Your task to perform on an android device: set default search engine in the chrome app Image 0: 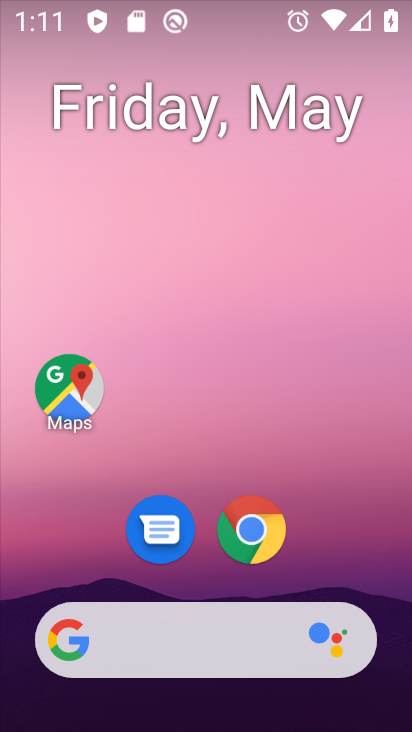
Step 0: click (250, 538)
Your task to perform on an android device: set default search engine in the chrome app Image 1: 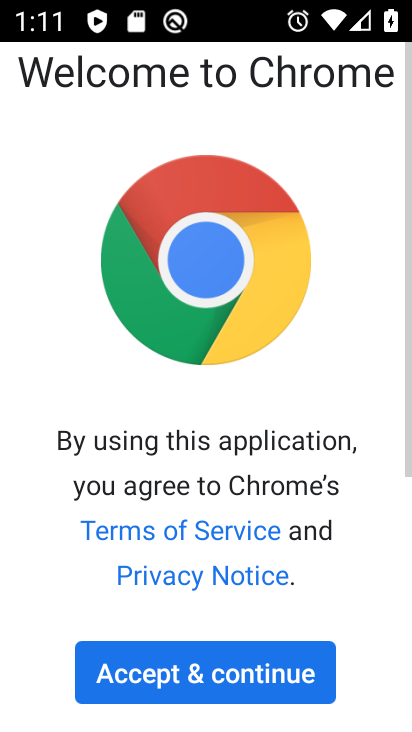
Step 1: click (239, 675)
Your task to perform on an android device: set default search engine in the chrome app Image 2: 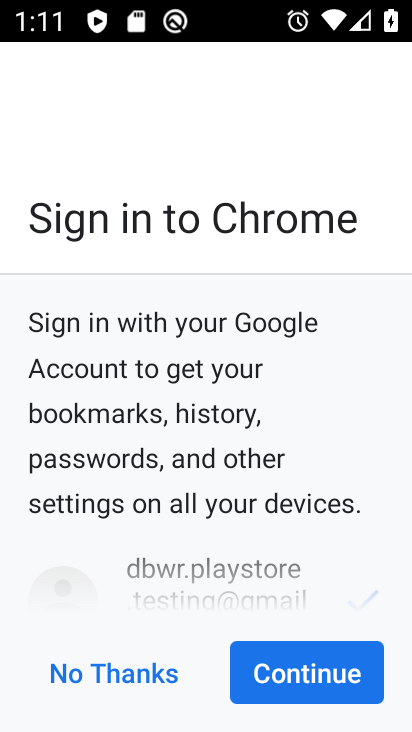
Step 2: click (304, 677)
Your task to perform on an android device: set default search engine in the chrome app Image 3: 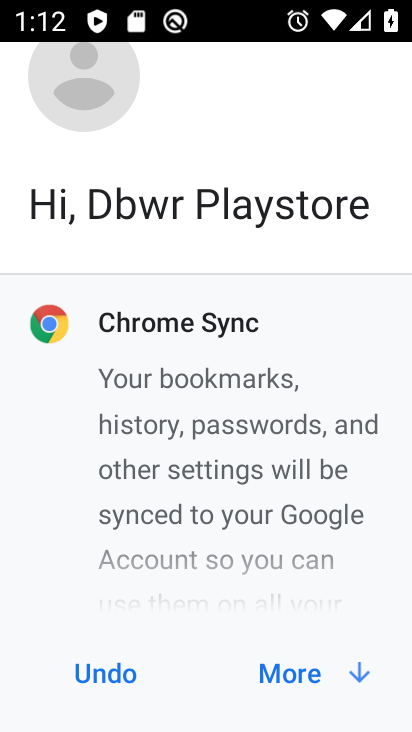
Step 3: click (304, 677)
Your task to perform on an android device: set default search engine in the chrome app Image 4: 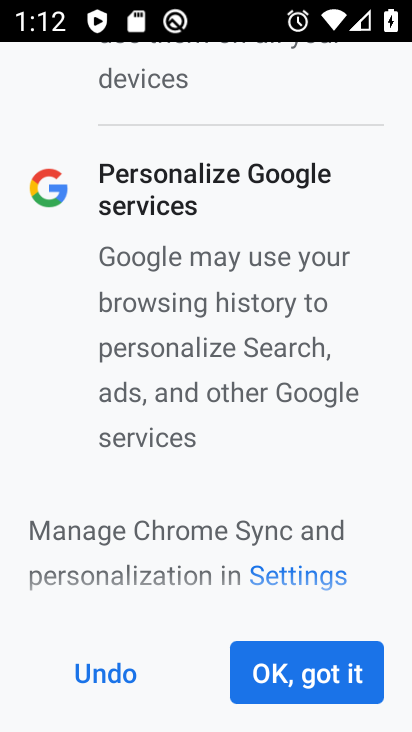
Step 4: click (281, 668)
Your task to perform on an android device: set default search engine in the chrome app Image 5: 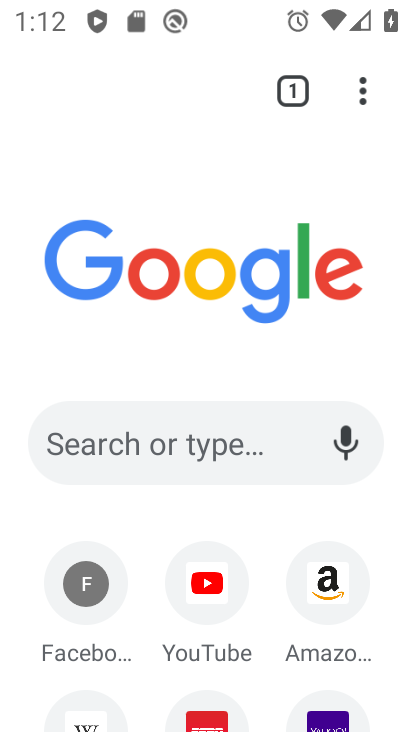
Step 5: click (197, 670)
Your task to perform on an android device: set default search engine in the chrome app Image 6: 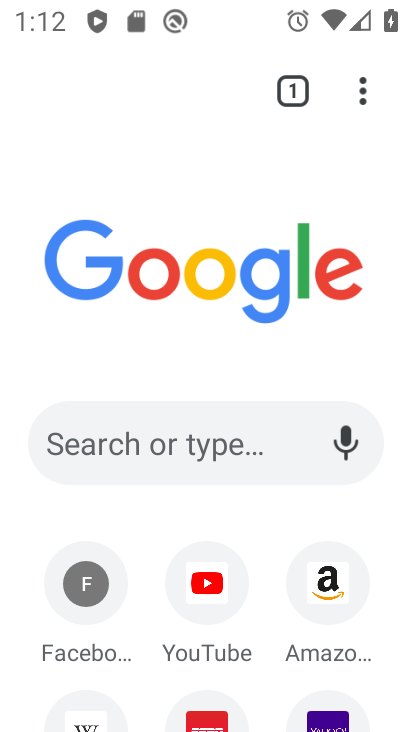
Step 6: click (366, 79)
Your task to perform on an android device: set default search engine in the chrome app Image 7: 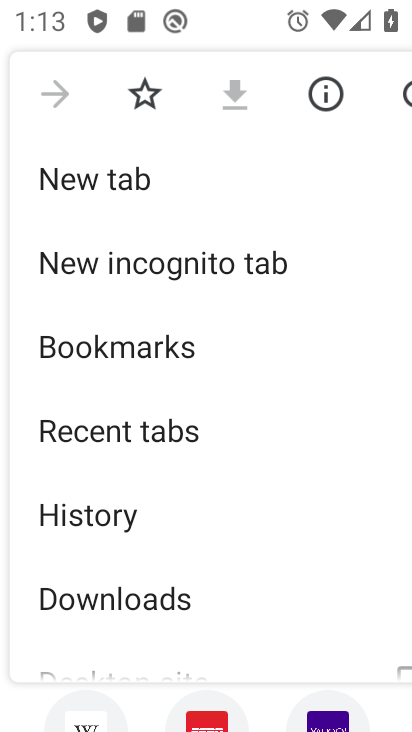
Step 7: drag from (341, 342) to (372, 573)
Your task to perform on an android device: set default search engine in the chrome app Image 8: 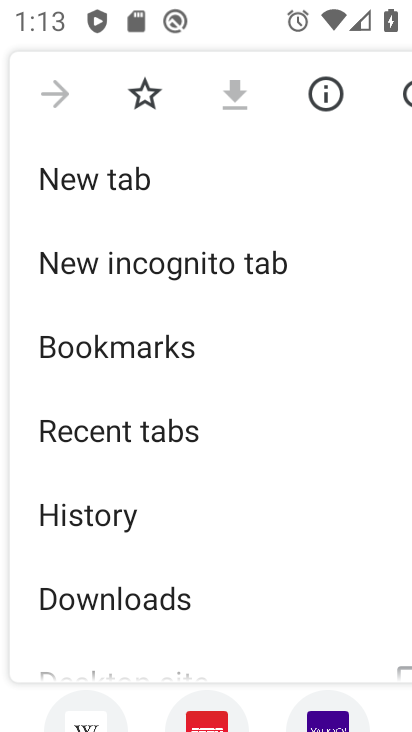
Step 8: drag from (308, 614) to (307, 288)
Your task to perform on an android device: set default search engine in the chrome app Image 9: 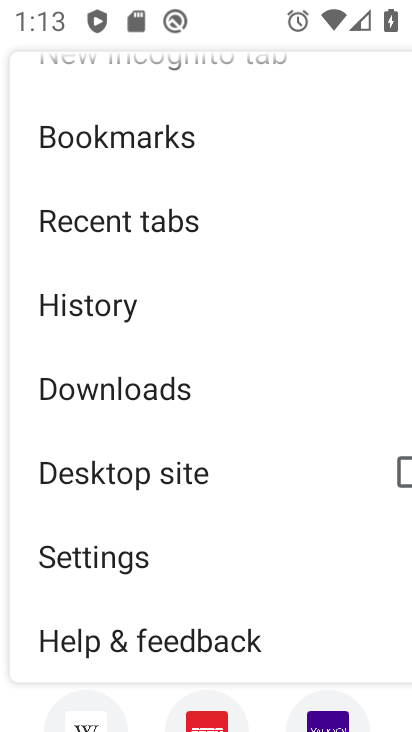
Step 9: click (95, 548)
Your task to perform on an android device: set default search engine in the chrome app Image 10: 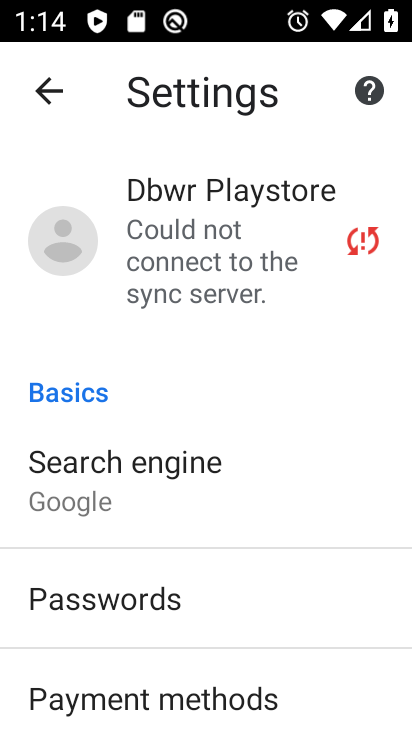
Step 10: click (90, 478)
Your task to perform on an android device: set default search engine in the chrome app Image 11: 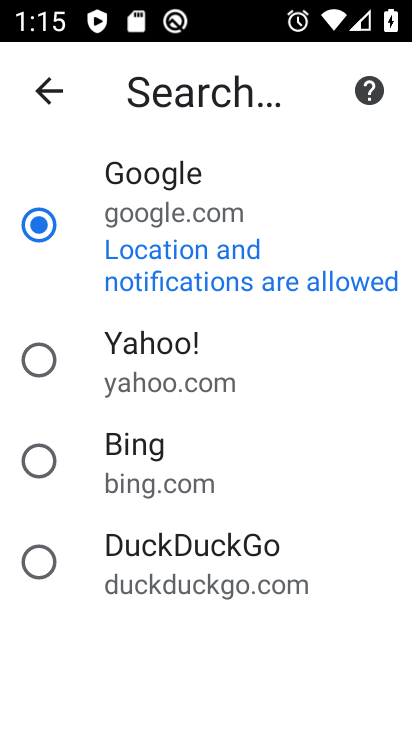
Step 11: task complete